Your task to perform on an android device: Open sound settings Image 0: 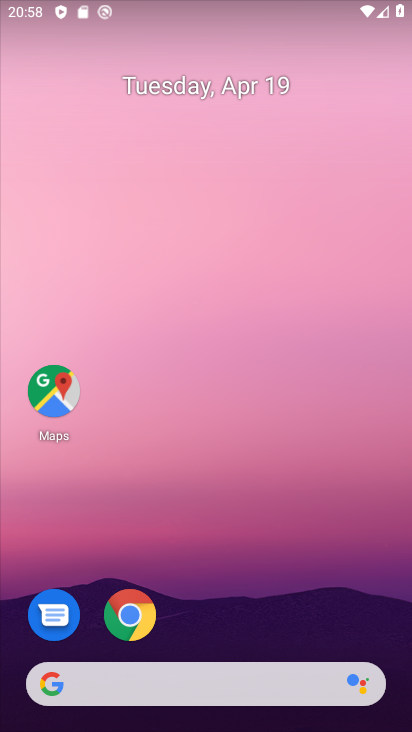
Step 0: drag from (244, 513) to (300, 296)
Your task to perform on an android device: Open sound settings Image 1: 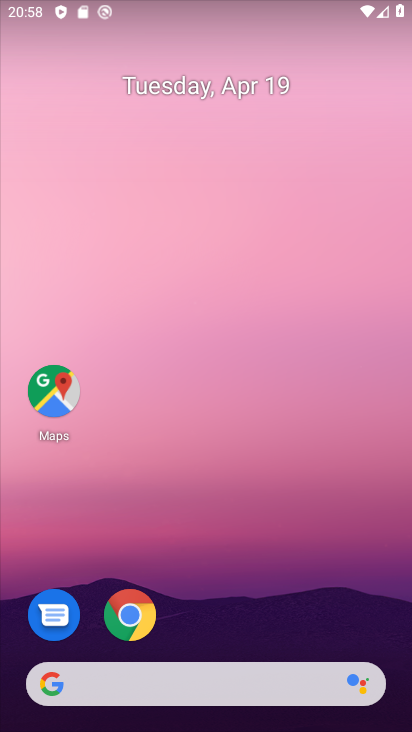
Step 1: drag from (207, 618) to (168, 237)
Your task to perform on an android device: Open sound settings Image 2: 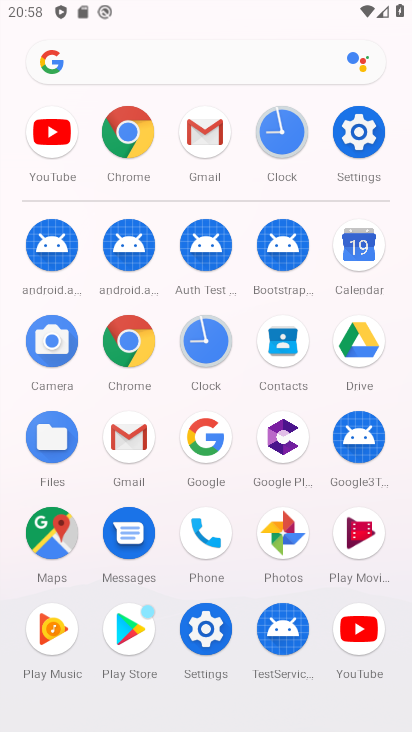
Step 2: click (372, 141)
Your task to perform on an android device: Open sound settings Image 3: 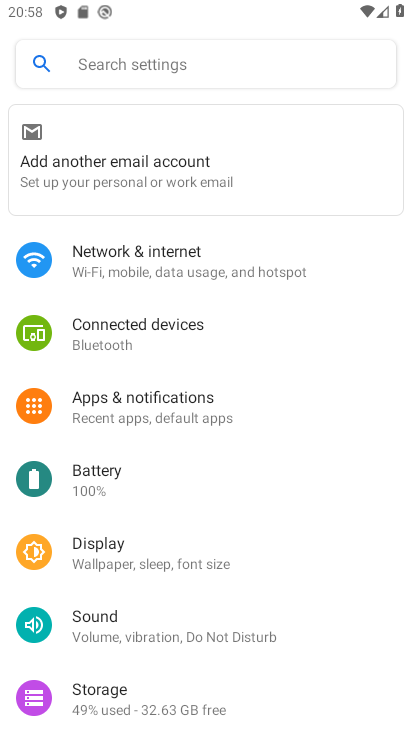
Step 3: click (130, 630)
Your task to perform on an android device: Open sound settings Image 4: 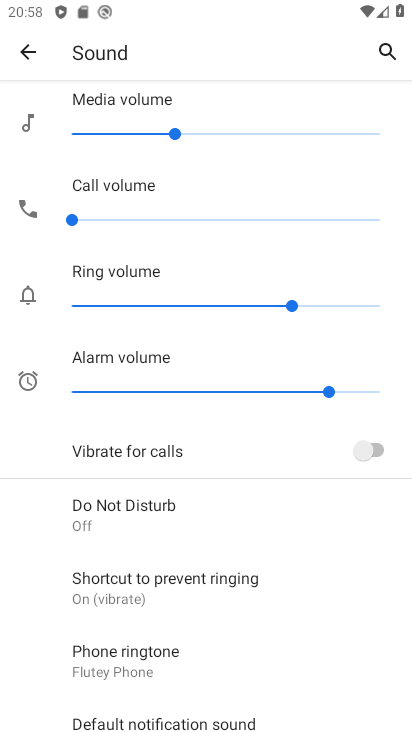
Step 4: drag from (191, 699) to (298, 295)
Your task to perform on an android device: Open sound settings Image 5: 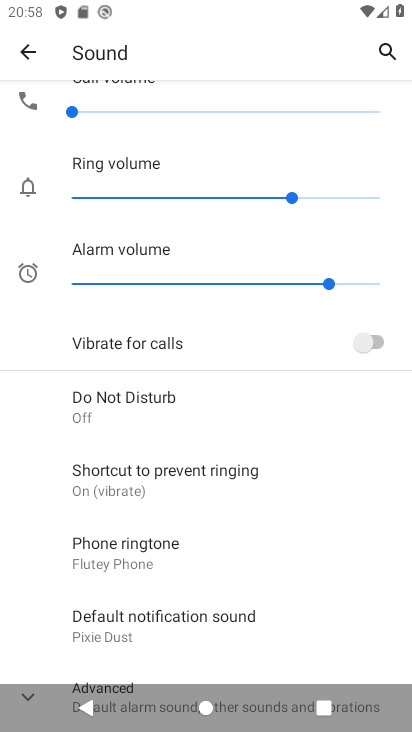
Step 5: drag from (178, 637) to (218, 325)
Your task to perform on an android device: Open sound settings Image 6: 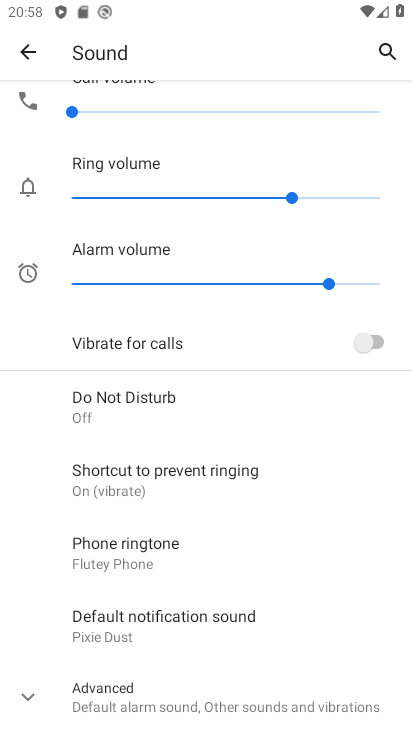
Step 6: click (140, 702)
Your task to perform on an android device: Open sound settings Image 7: 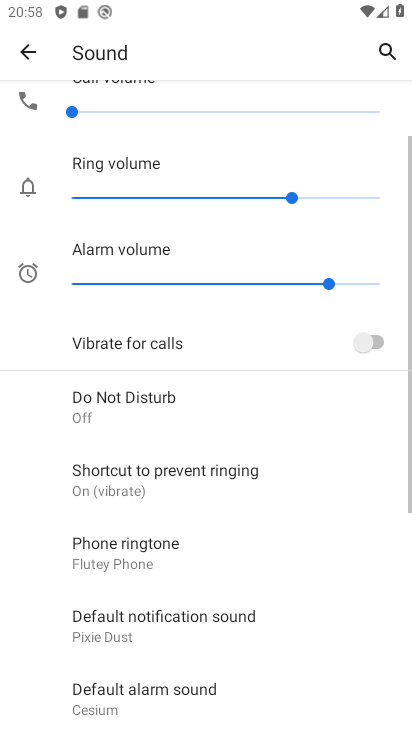
Step 7: task complete